Your task to perform on an android device: open app "Airtel Thanks" (install if not already installed), go to login, and select forgot password Image 0: 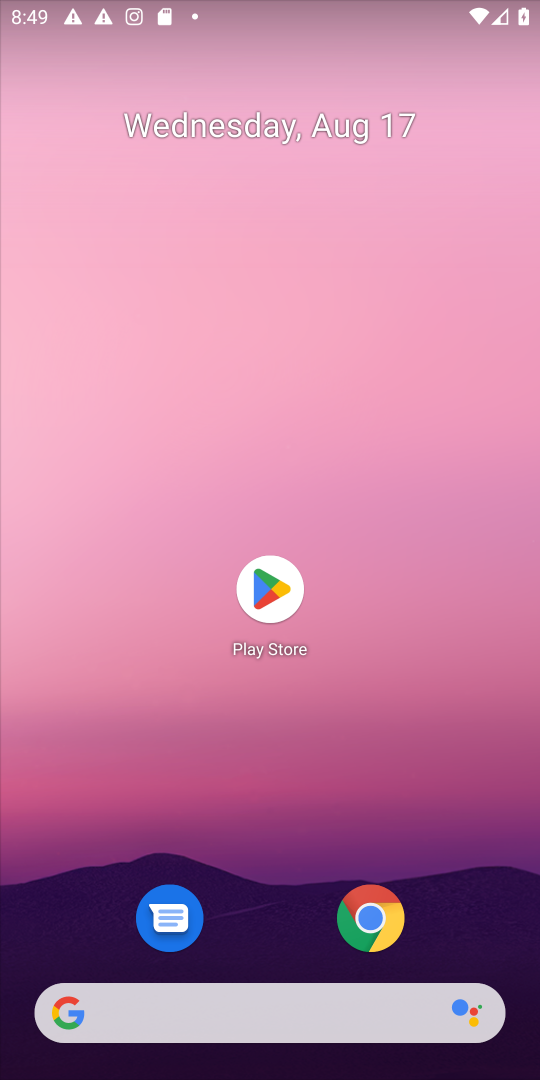
Step 0: press home button
Your task to perform on an android device: open app "Airtel Thanks" (install if not already installed), go to login, and select forgot password Image 1: 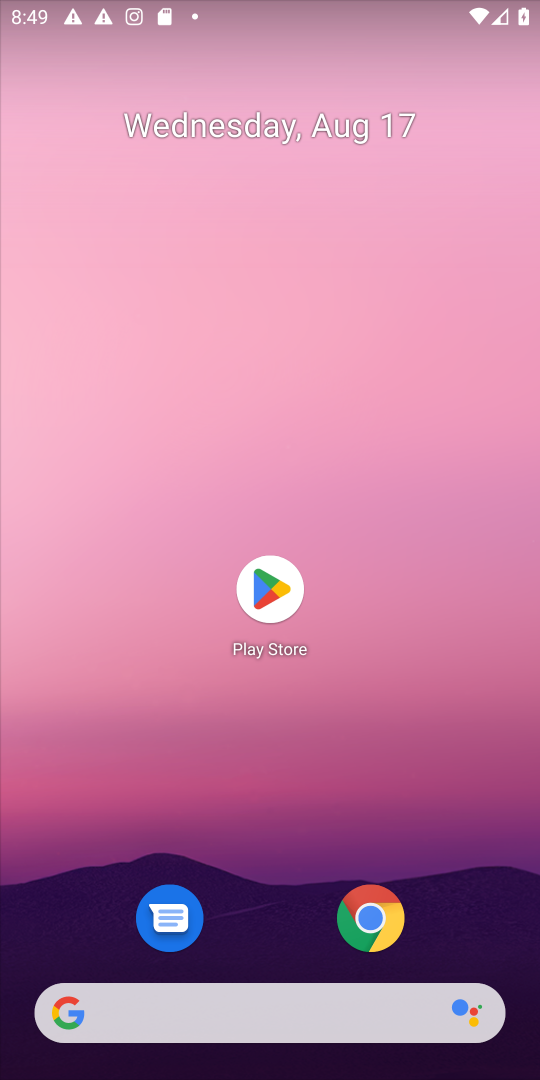
Step 1: click (263, 587)
Your task to perform on an android device: open app "Airtel Thanks" (install if not already installed), go to login, and select forgot password Image 2: 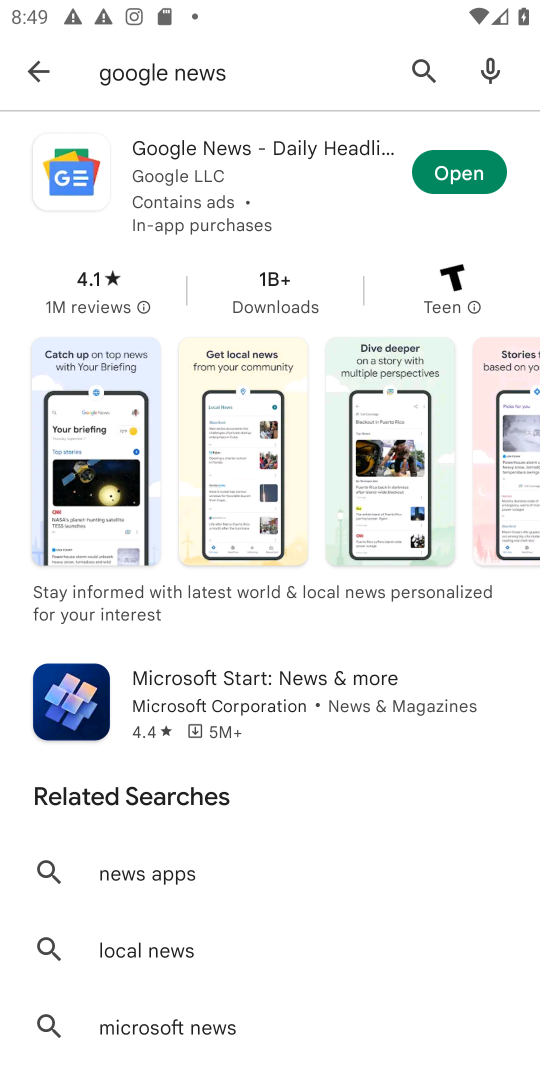
Step 2: click (411, 70)
Your task to perform on an android device: open app "Airtel Thanks" (install if not already installed), go to login, and select forgot password Image 3: 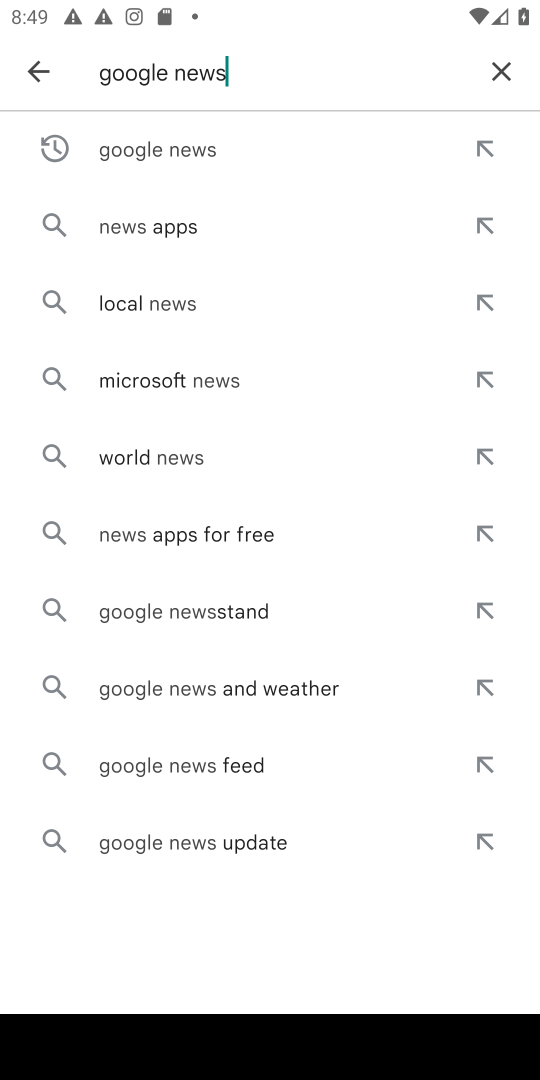
Step 3: click (500, 62)
Your task to perform on an android device: open app "Airtel Thanks" (install if not already installed), go to login, and select forgot password Image 4: 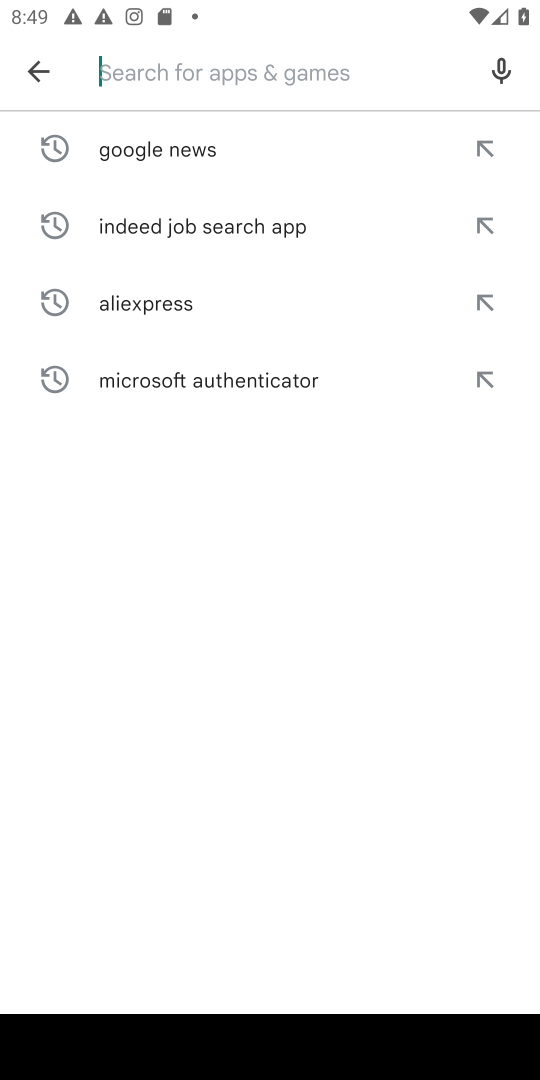
Step 4: type "Airtel Thanks"
Your task to perform on an android device: open app "Airtel Thanks" (install if not already installed), go to login, and select forgot password Image 5: 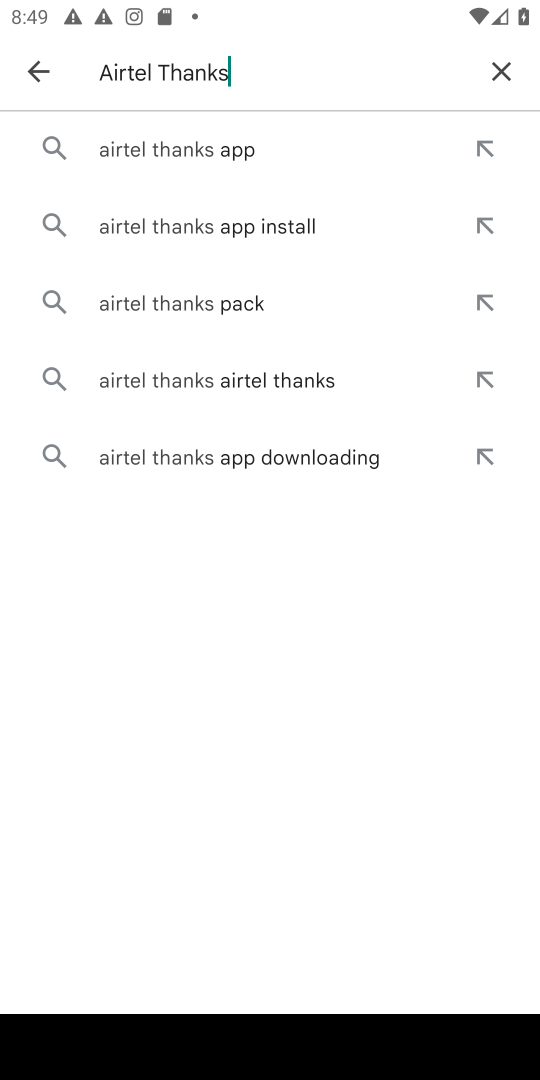
Step 5: click (218, 145)
Your task to perform on an android device: open app "Airtel Thanks" (install if not already installed), go to login, and select forgot password Image 6: 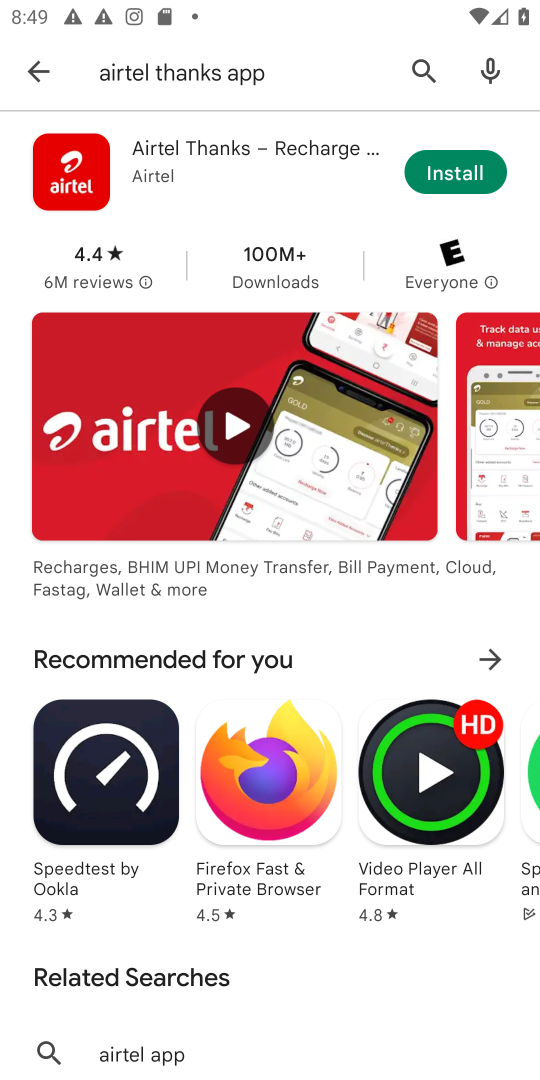
Step 6: click (419, 176)
Your task to perform on an android device: open app "Airtel Thanks" (install if not already installed), go to login, and select forgot password Image 7: 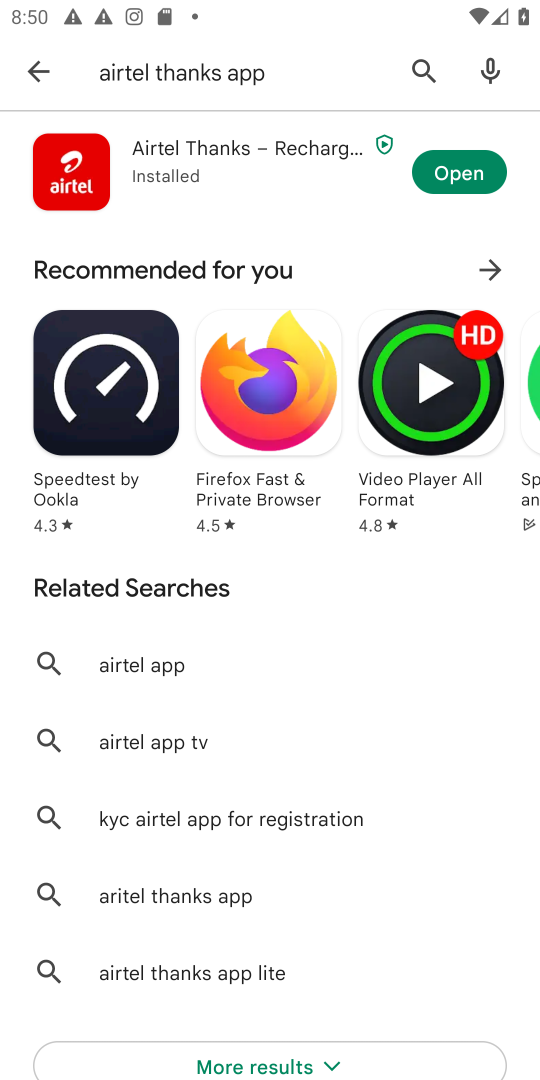
Step 7: click (441, 174)
Your task to perform on an android device: open app "Airtel Thanks" (install if not already installed), go to login, and select forgot password Image 8: 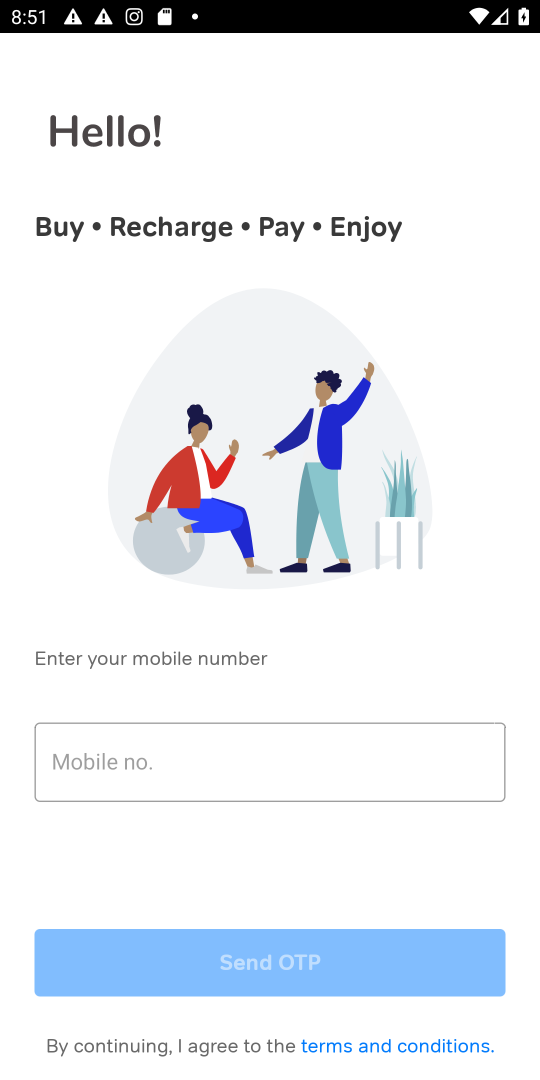
Step 8: task complete